Your task to perform on an android device: turn on airplane mode Image 0: 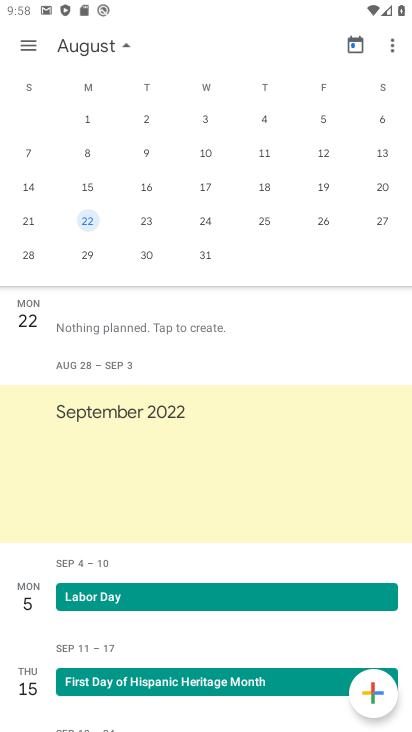
Step 0: press home button
Your task to perform on an android device: turn on airplane mode Image 1: 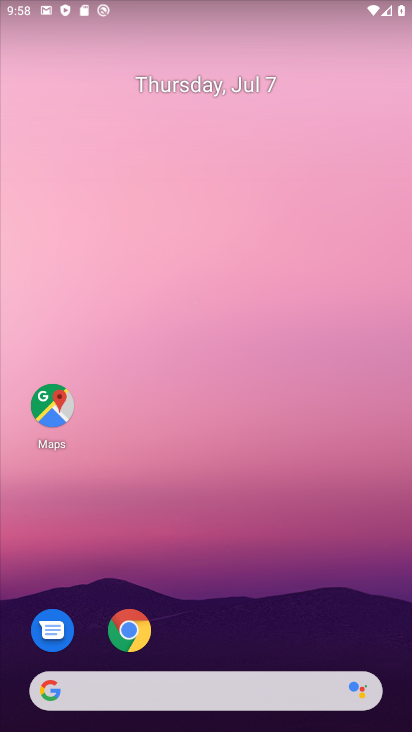
Step 1: drag from (19, 724) to (308, 49)
Your task to perform on an android device: turn on airplane mode Image 2: 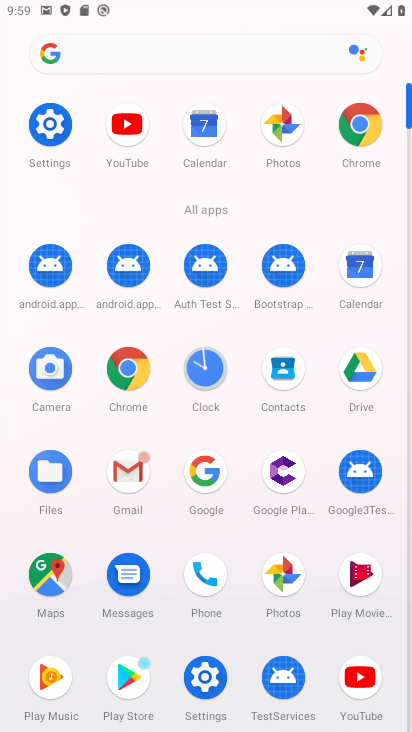
Step 2: click (181, 674)
Your task to perform on an android device: turn on airplane mode Image 3: 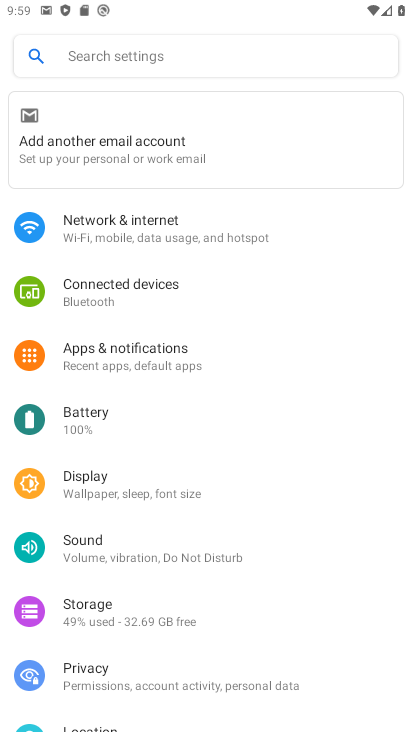
Step 3: click (117, 227)
Your task to perform on an android device: turn on airplane mode Image 4: 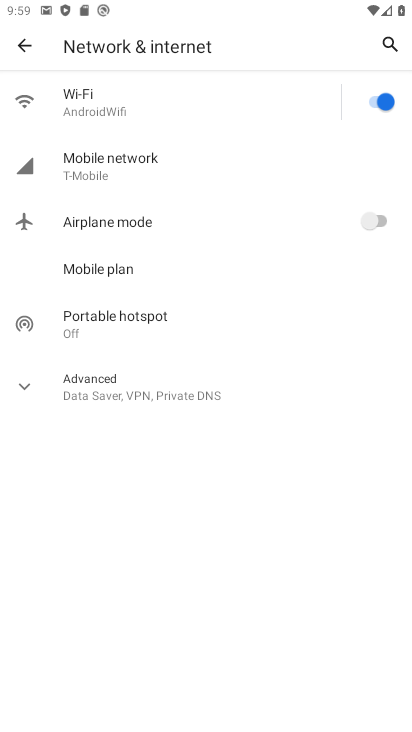
Step 4: click (369, 218)
Your task to perform on an android device: turn on airplane mode Image 5: 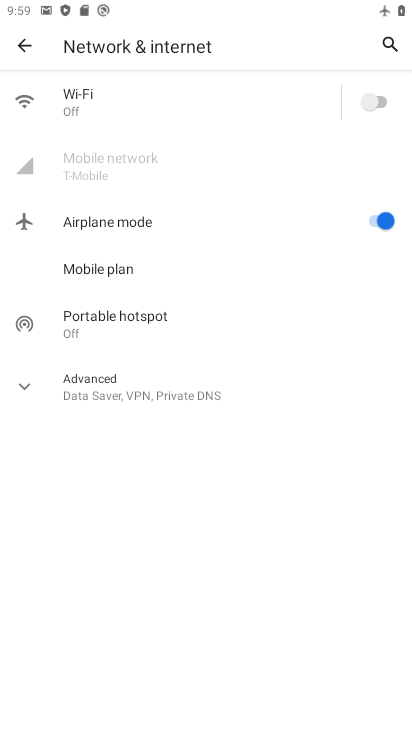
Step 5: task complete